Your task to perform on an android device: open app "DuckDuckGo Privacy Browser" (install if not already installed), go to login, and select forgot password Image 0: 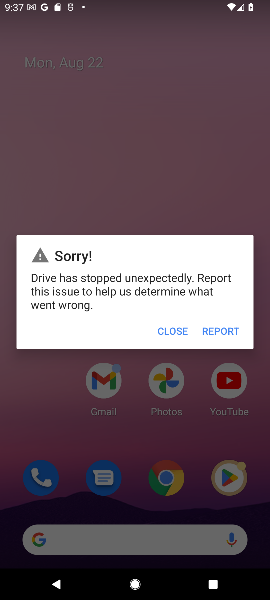
Step 0: click (225, 475)
Your task to perform on an android device: open app "DuckDuckGo Privacy Browser" (install if not already installed), go to login, and select forgot password Image 1: 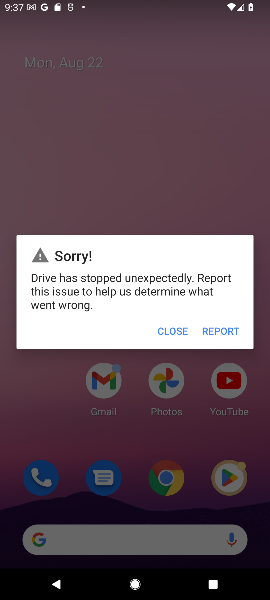
Step 1: click (176, 326)
Your task to perform on an android device: open app "DuckDuckGo Privacy Browser" (install if not already installed), go to login, and select forgot password Image 2: 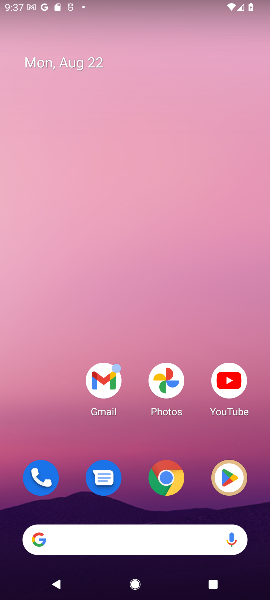
Step 2: click (231, 470)
Your task to perform on an android device: open app "DuckDuckGo Privacy Browser" (install if not already installed), go to login, and select forgot password Image 3: 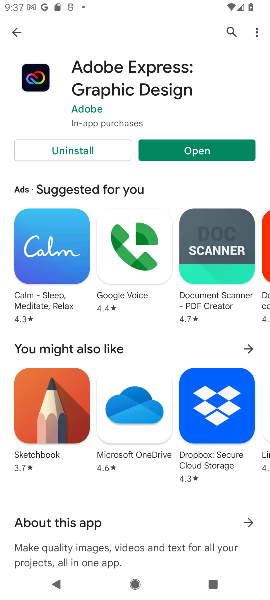
Step 3: click (223, 33)
Your task to perform on an android device: open app "DuckDuckGo Privacy Browser" (install if not already installed), go to login, and select forgot password Image 4: 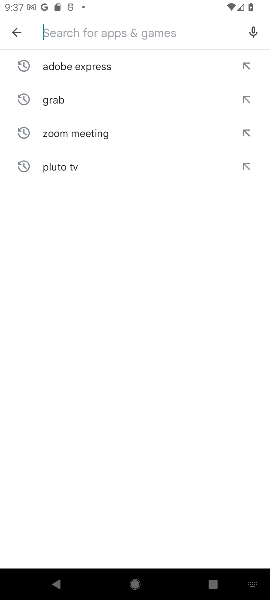
Step 4: type "duck duck go"
Your task to perform on an android device: open app "DuckDuckGo Privacy Browser" (install if not already installed), go to login, and select forgot password Image 5: 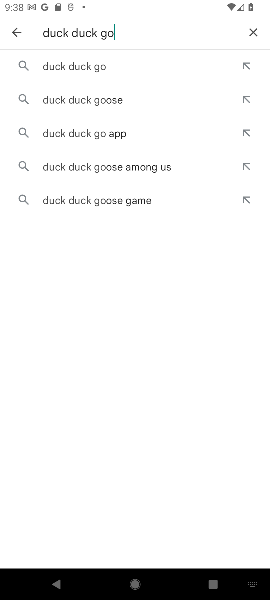
Step 5: click (152, 70)
Your task to perform on an android device: open app "DuckDuckGo Privacy Browser" (install if not already installed), go to login, and select forgot password Image 6: 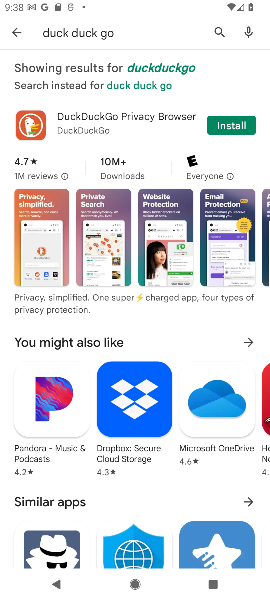
Step 6: click (221, 122)
Your task to perform on an android device: open app "DuckDuckGo Privacy Browser" (install if not already installed), go to login, and select forgot password Image 7: 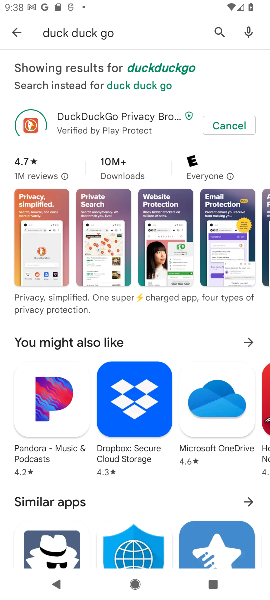
Step 7: task complete